Your task to perform on an android device: turn off wifi Image 0: 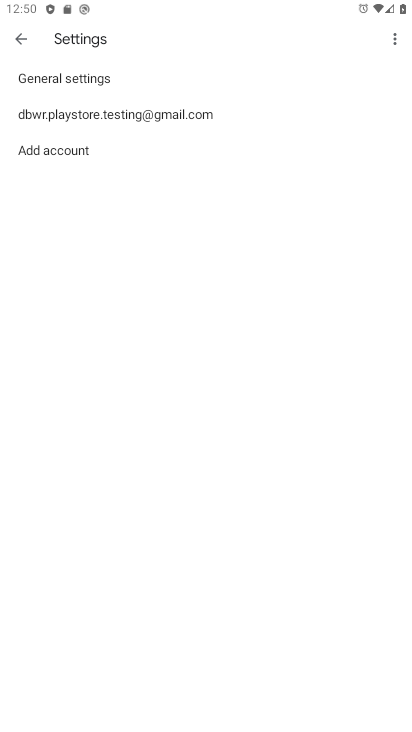
Step 0: press home button
Your task to perform on an android device: turn off wifi Image 1: 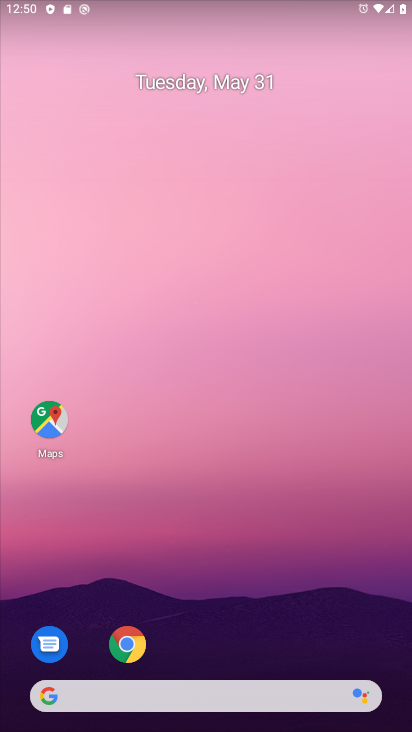
Step 1: drag from (210, 639) to (200, 203)
Your task to perform on an android device: turn off wifi Image 2: 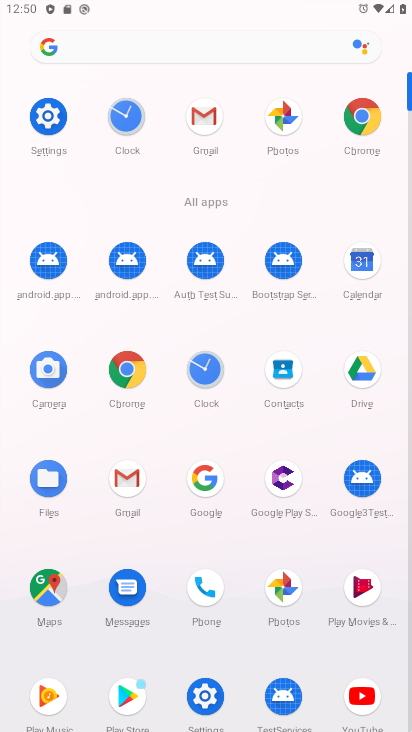
Step 2: click (48, 116)
Your task to perform on an android device: turn off wifi Image 3: 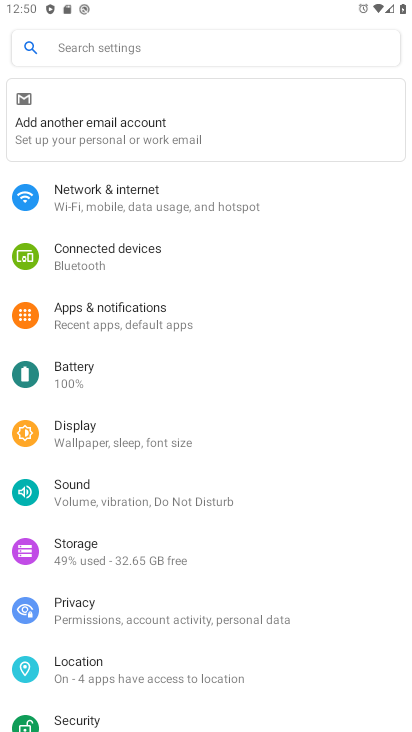
Step 3: click (131, 200)
Your task to perform on an android device: turn off wifi Image 4: 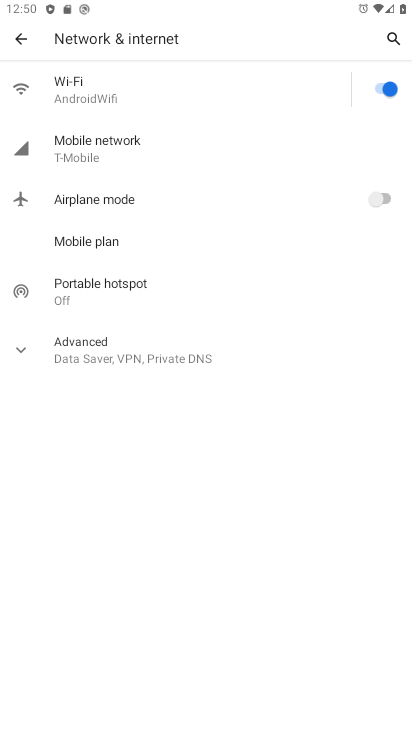
Step 4: click (376, 87)
Your task to perform on an android device: turn off wifi Image 5: 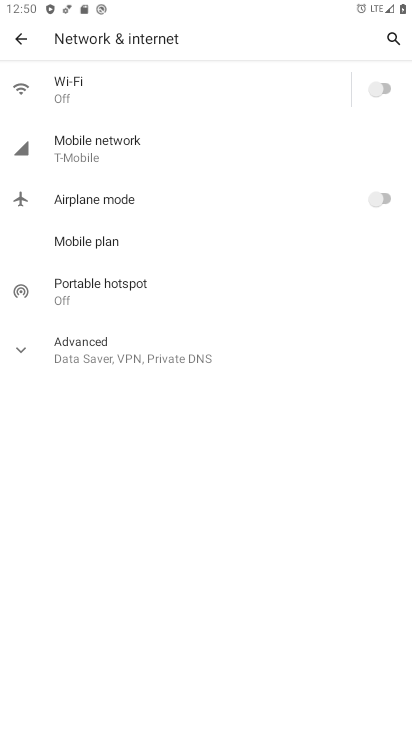
Step 5: task complete